Your task to perform on an android device: set an alarm Image 0: 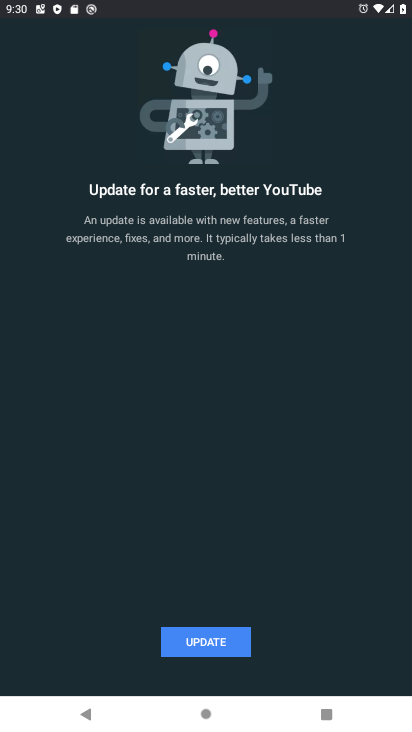
Step 0: press home button
Your task to perform on an android device: set an alarm Image 1: 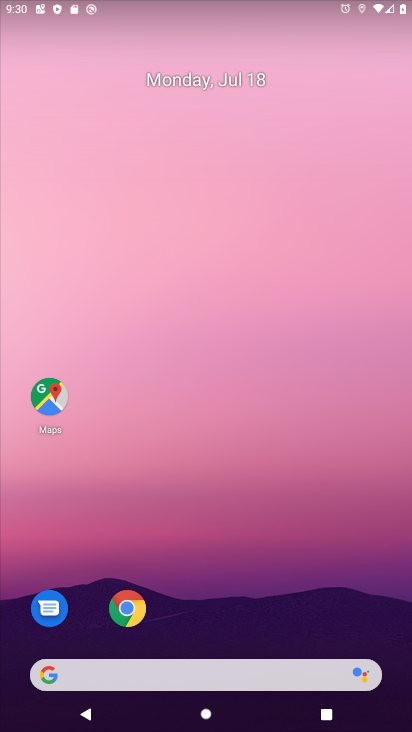
Step 1: drag from (29, 704) to (367, 71)
Your task to perform on an android device: set an alarm Image 2: 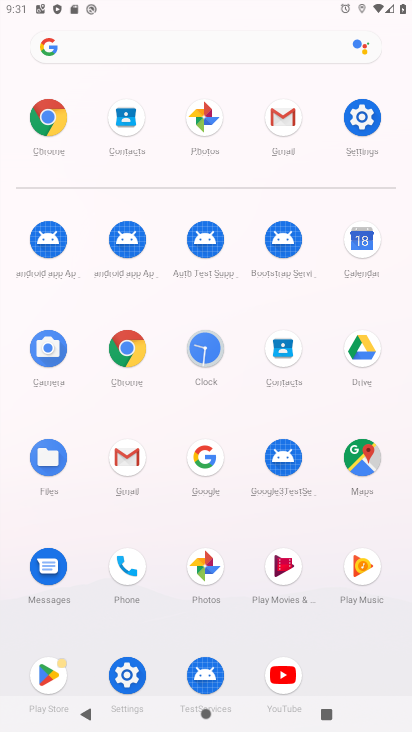
Step 2: click (203, 340)
Your task to perform on an android device: set an alarm Image 3: 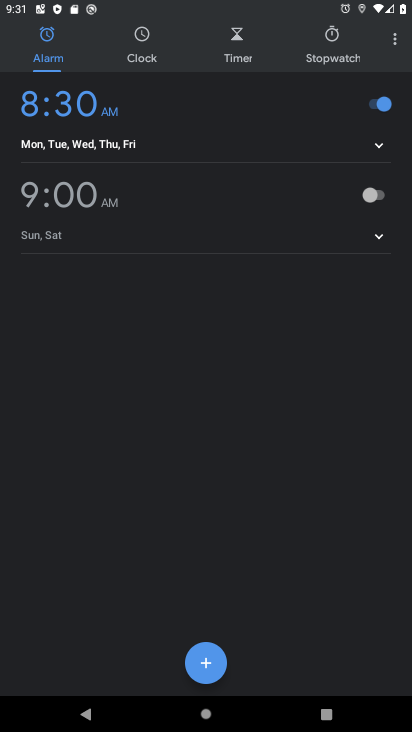
Step 3: task complete